Your task to perform on an android device: Go to Yahoo.com Image 0: 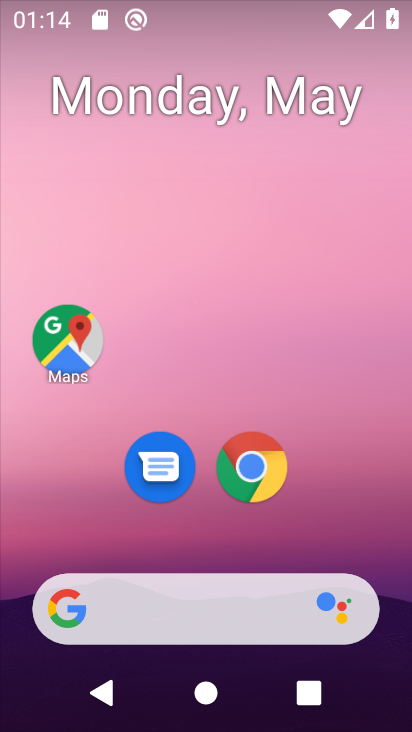
Step 0: drag from (184, 567) to (143, 87)
Your task to perform on an android device: Go to Yahoo.com Image 1: 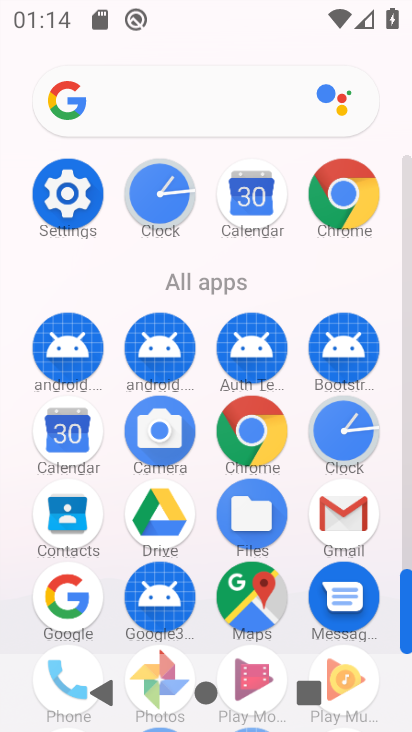
Step 1: click (231, 426)
Your task to perform on an android device: Go to Yahoo.com Image 2: 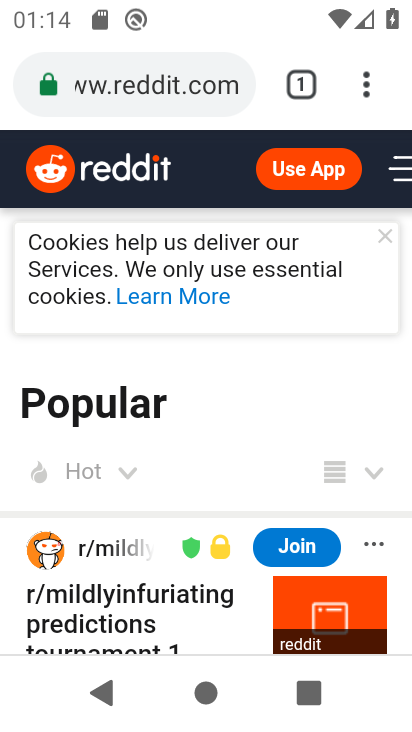
Step 2: click (288, 81)
Your task to perform on an android device: Go to Yahoo.com Image 3: 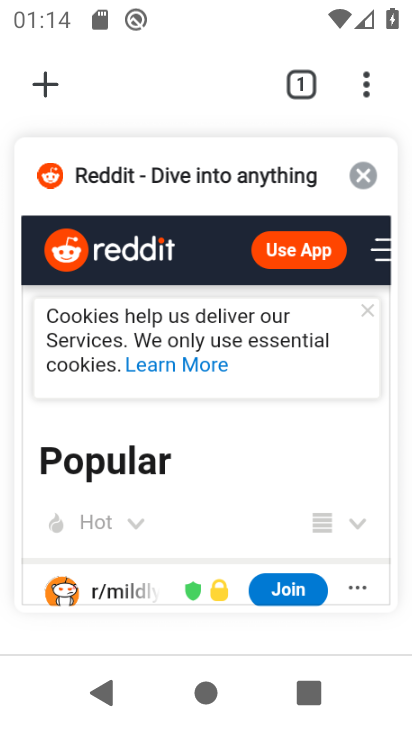
Step 3: click (54, 77)
Your task to perform on an android device: Go to Yahoo.com Image 4: 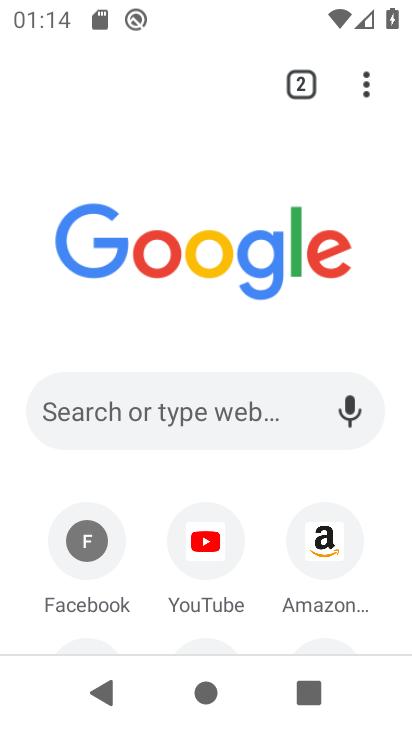
Step 4: drag from (246, 609) to (205, 343)
Your task to perform on an android device: Go to Yahoo.com Image 5: 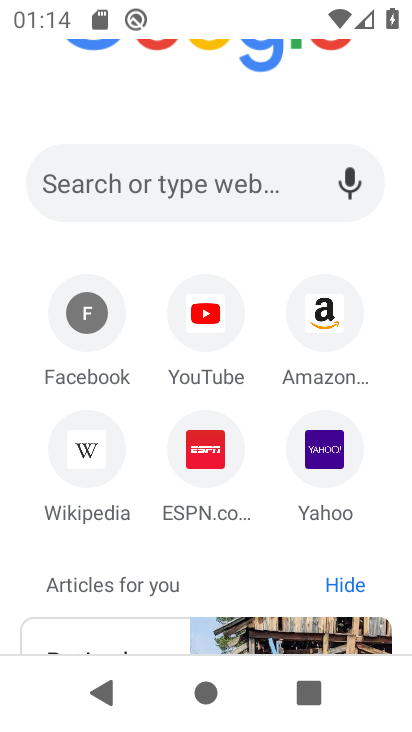
Step 5: click (332, 452)
Your task to perform on an android device: Go to Yahoo.com Image 6: 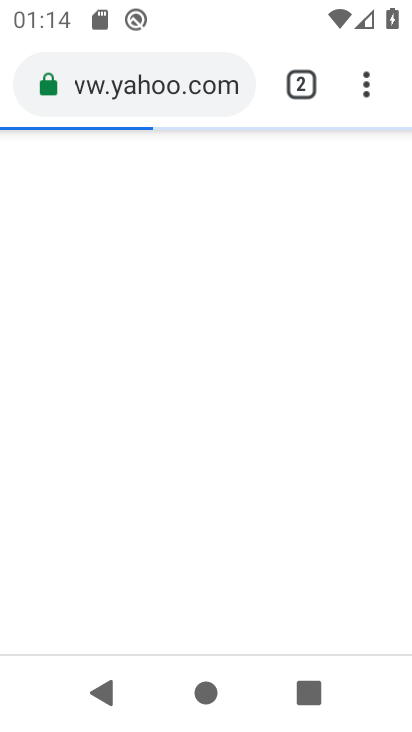
Step 6: task complete